Your task to perform on an android device: toggle priority inbox in the gmail app Image 0: 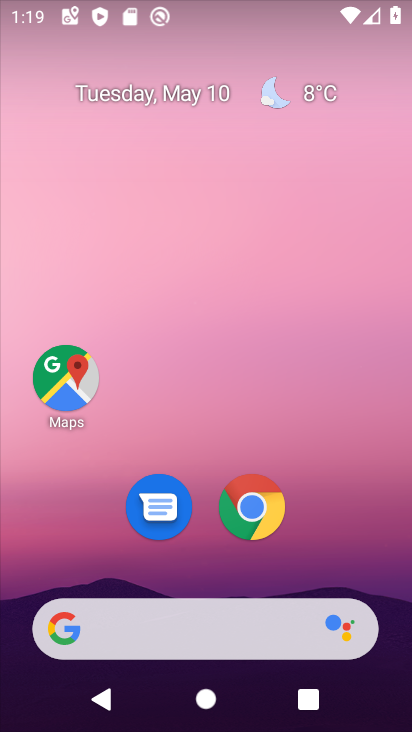
Step 0: drag from (244, 671) to (258, 235)
Your task to perform on an android device: toggle priority inbox in the gmail app Image 1: 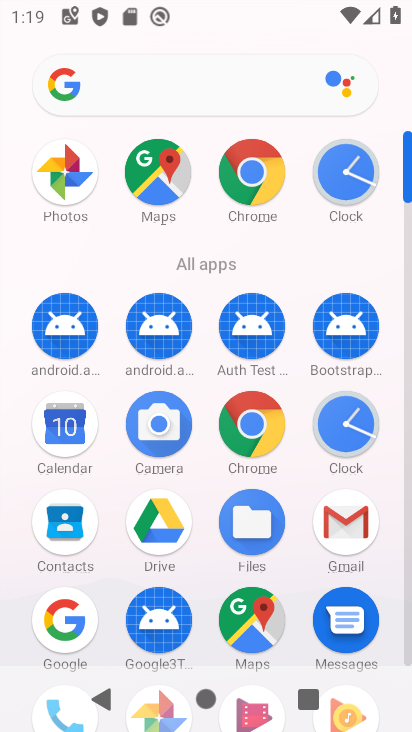
Step 1: click (332, 531)
Your task to perform on an android device: toggle priority inbox in the gmail app Image 2: 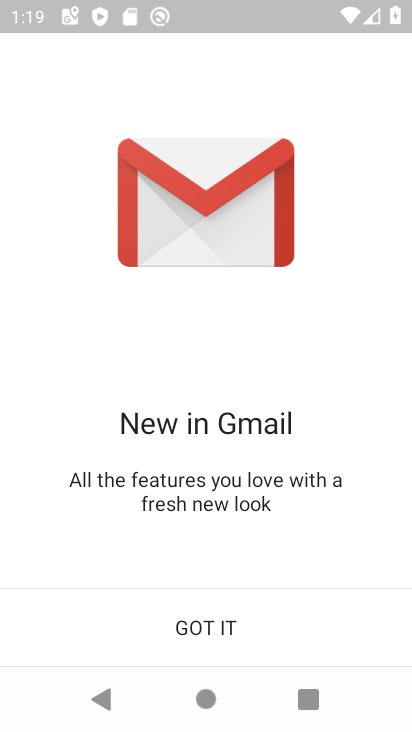
Step 2: click (233, 621)
Your task to perform on an android device: toggle priority inbox in the gmail app Image 3: 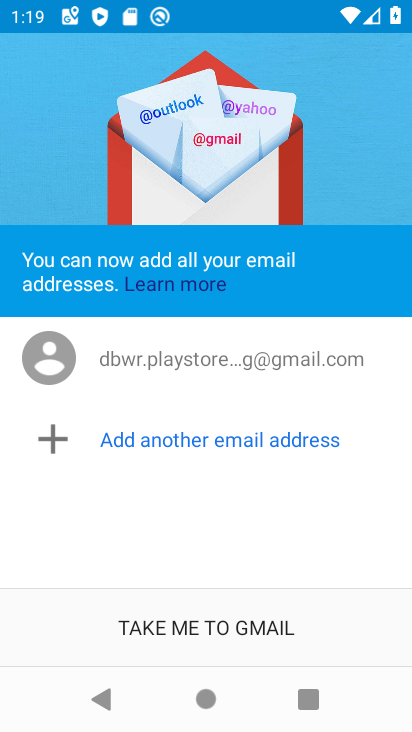
Step 3: click (212, 618)
Your task to perform on an android device: toggle priority inbox in the gmail app Image 4: 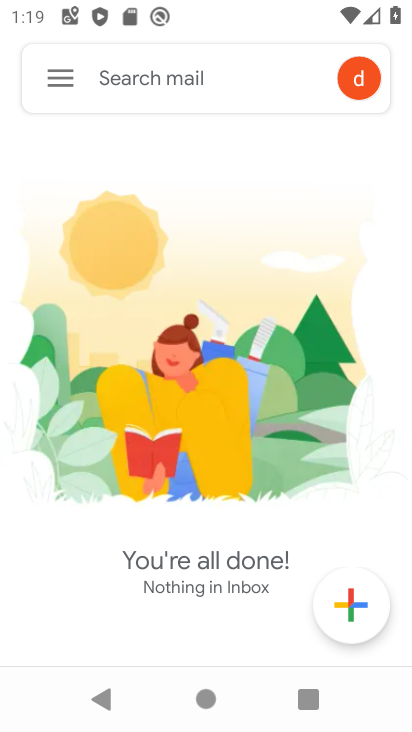
Step 4: click (50, 91)
Your task to perform on an android device: toggle priority inbox in the gmail app Image 5: 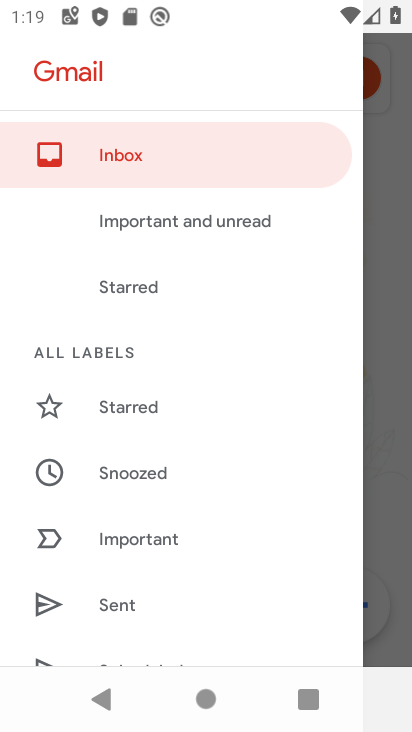
Step 5: drag from (190, 561) to (241, 322)
Your task to perform on an android device: toggle priority inbox in the gmail app Image 6: 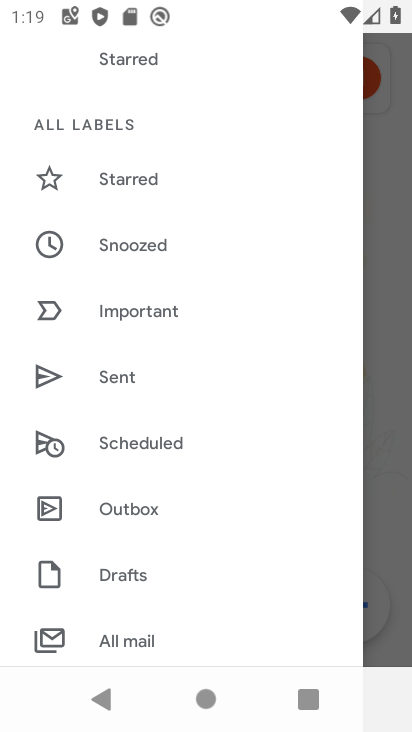
Step 6: drag from (161, 602) to (173, 333)
Your task to perform on an android device: toggle priority inbox in the gmail app Image 7: 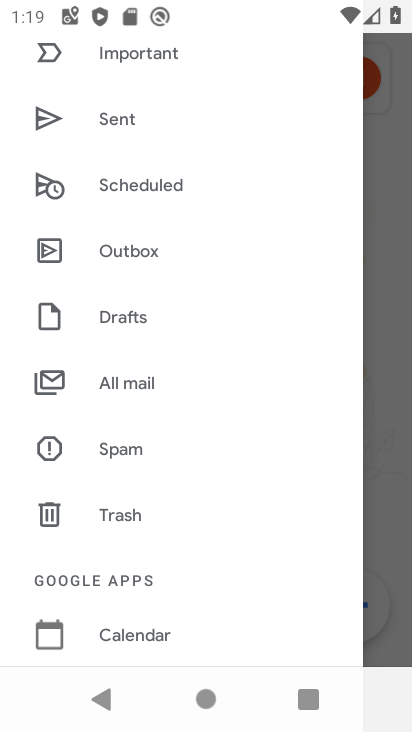
Step 7: drag from (153, 622) to (168, 466)
Your task to perform on an android device: toggle priority inbox in the gmail app Image 8: 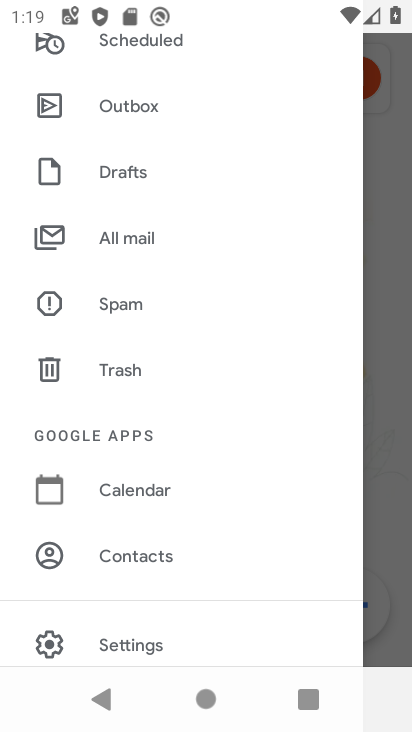
Step 8: click (124, 637)
Your task to perform on an android device: toggle priority inbox in the gmail app Image 9: 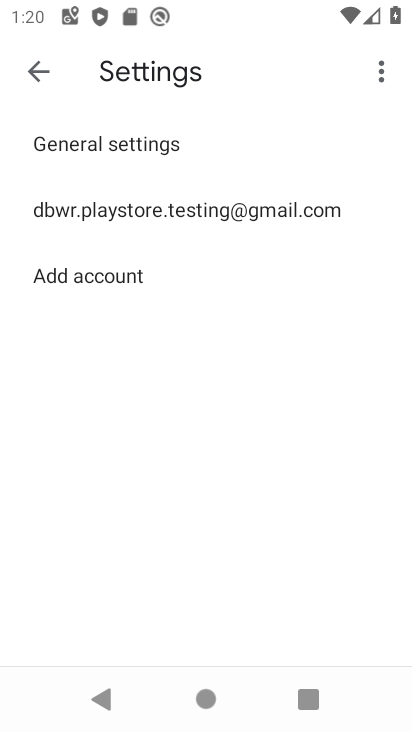
Step 9: click (211, 204)
Your task to perform on an android device: toggle priority inbox in the gmail app Image 10: 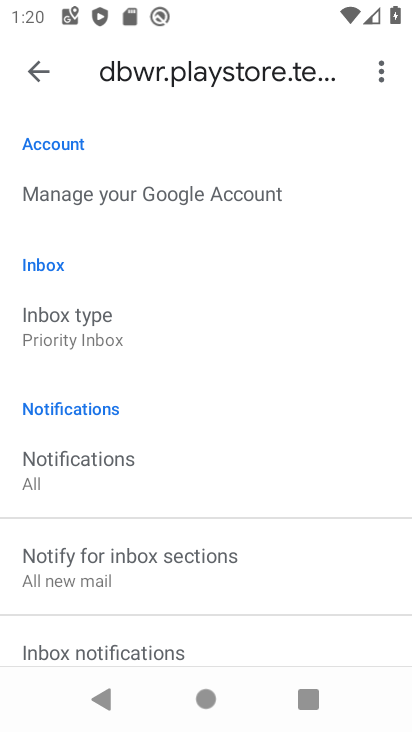
Step 10: click (128, 319)
Your task to perform on an android device: toggle priority inbox in the gmail app Image 11: 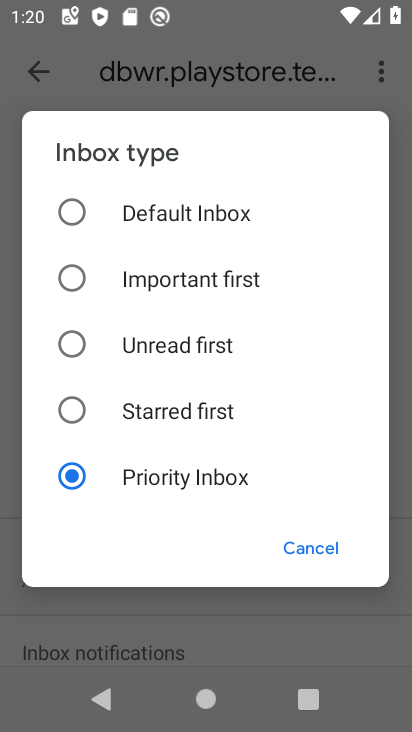
Step 11: task complete